Your task to perform on an android device: turn on notifications settings in the gmail app Image 0: 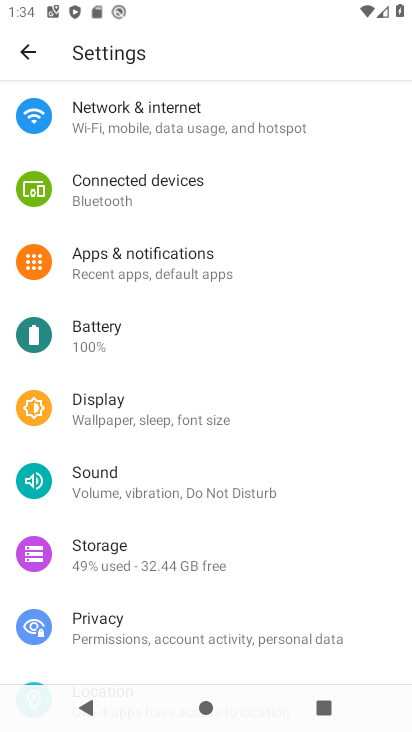
Step 0: press home button
Your task to perform on an android device: turn on notifications settings in the gmail app Image 1: 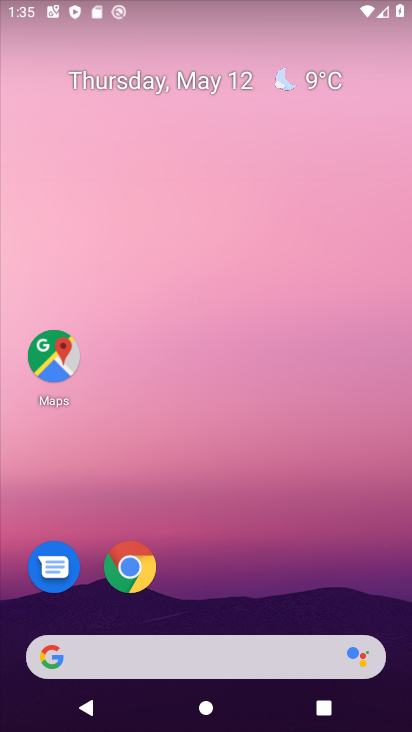
Step 1: drag from (217, 603) to (235, 20)
Your task to perform on an android device: turn on notifications settings in the gmail app Image 2: 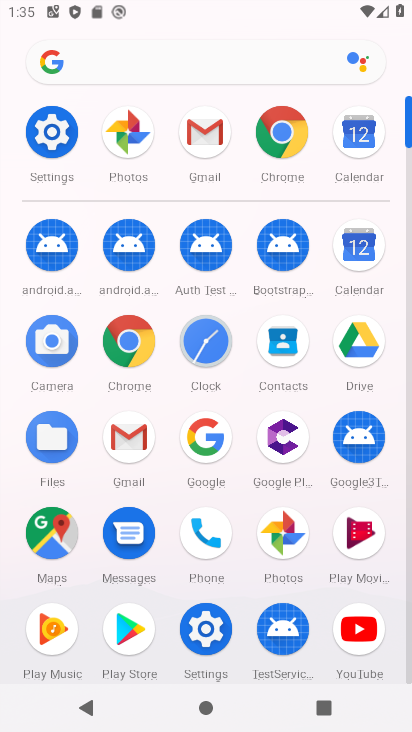
Step 2: click (206, 145)
Your task to perform on an android device: turn on notifications settings in the gmail app Image 3: 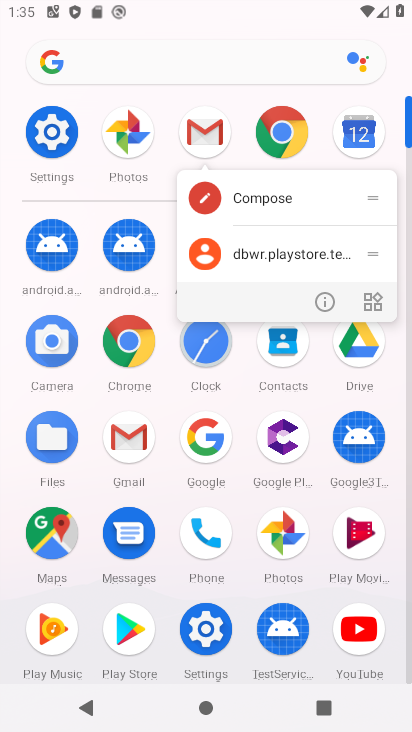
Step 3: click (201, 119)
Your task to perform on an android device: turn on notifications settings in the gmail app Image 4: 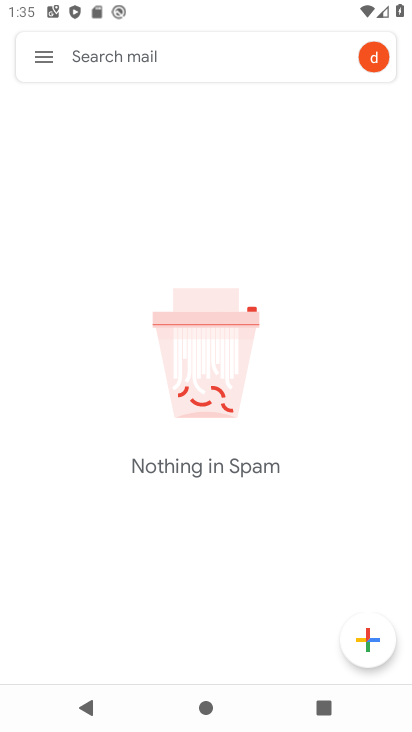
Step 4: click (47, 45)
Your task to perform on an android device: turn on notifications settings in the gmail app Image 5: 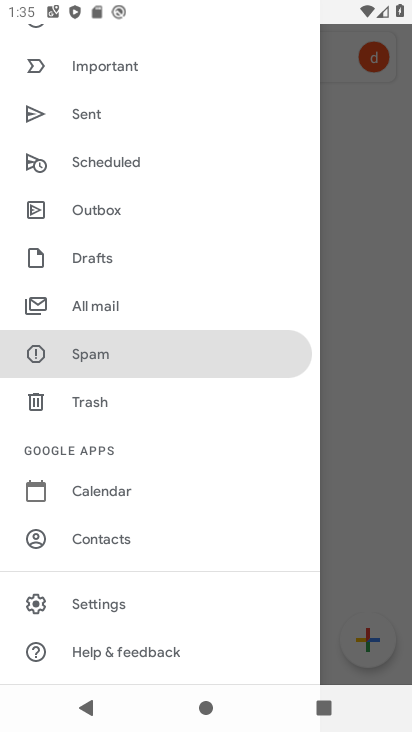
Step 5: click (120, 598)
Your task to perform on an android device: turn on notifications settings in the gmail app Image 6: 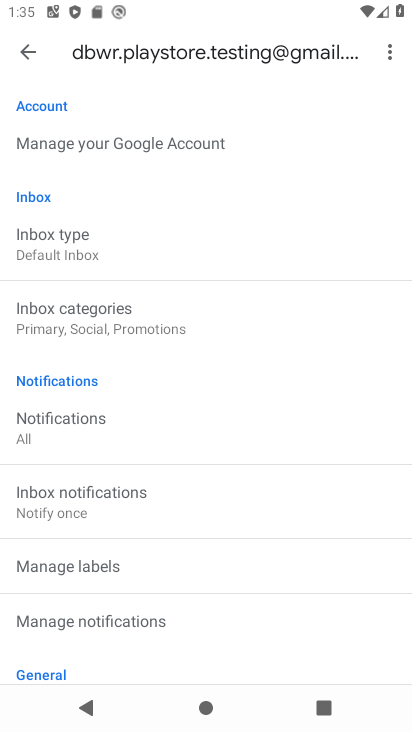
Step 6: click (27, 43)
Your task to perform on an android device: turn on notifications settings in the gmail app Image 7: 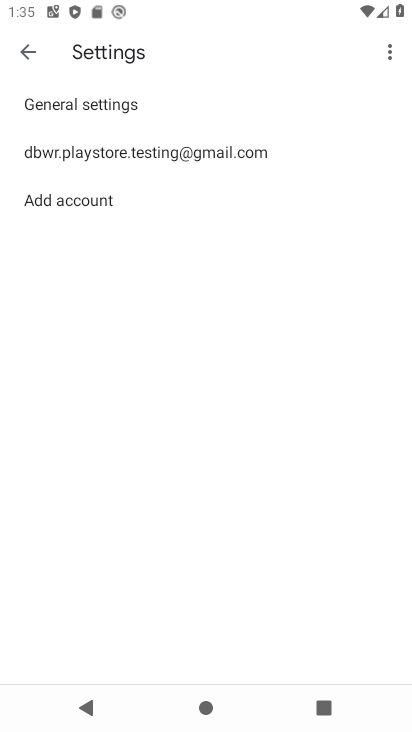
Step 7: click (111, 103)
Your task to perform on an android device: turn on notifications settings in the gmail app Image 8: 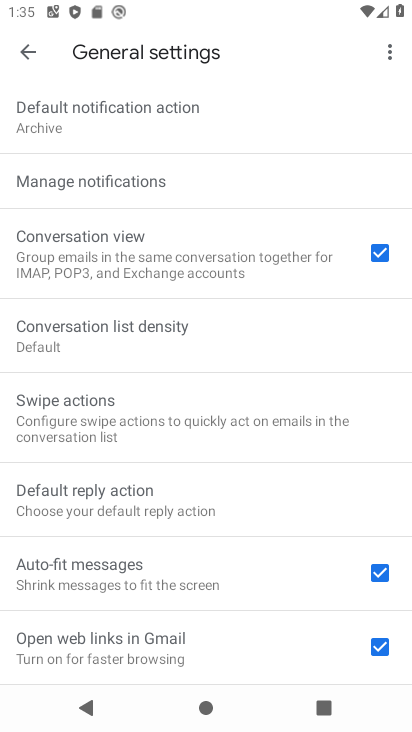
Step 8: click (177, 173)
Your task to perform on an android device: turn on notifications settings in the gmail app Image 9: 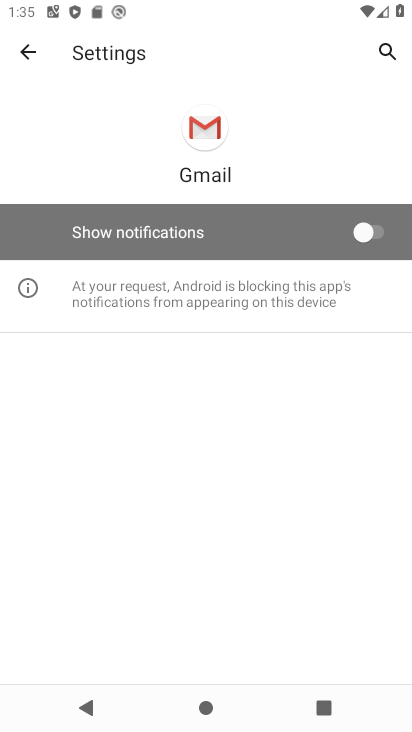
Step 9: click (371, 232)
Your task to perform on an android device: turn on notifications settings in the gmail app Image 10: 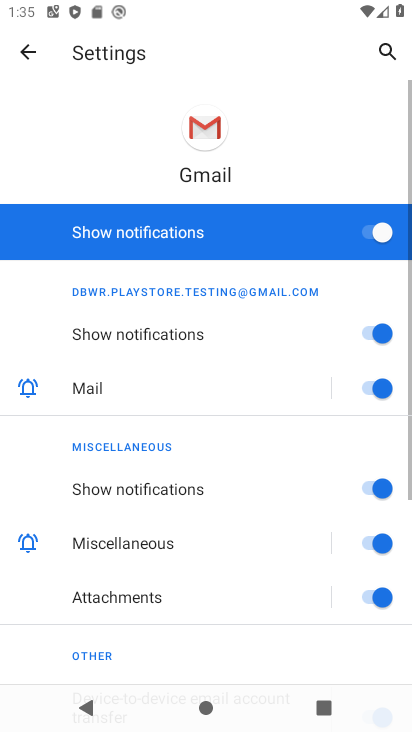
Step 10: task complete